Your task to perform on an android device: Open Google Chrome and click the shortcut for Amazon.com Image 0: 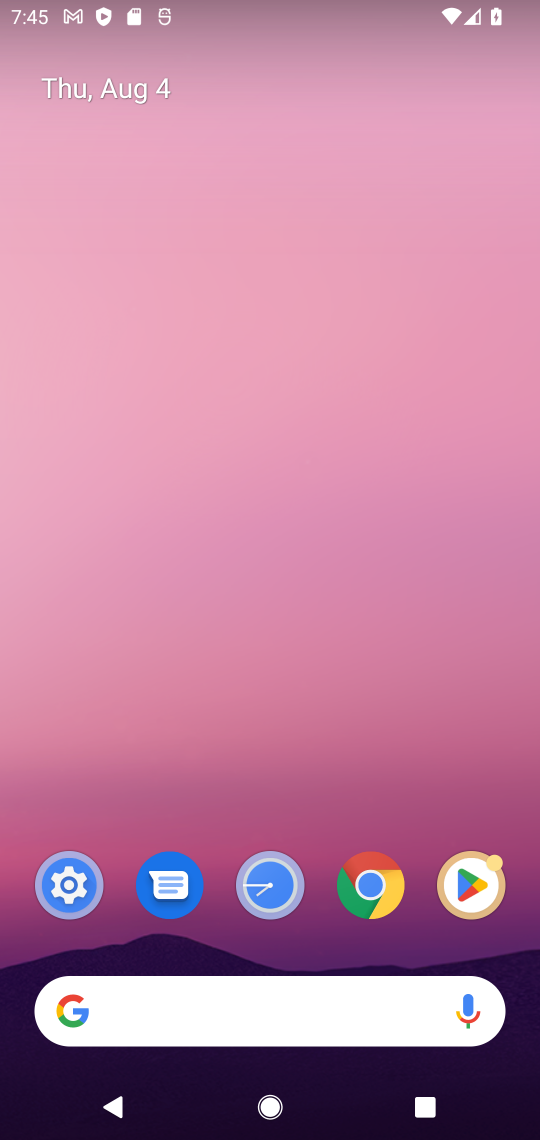
Step 0: press home button
Your task to perform on an android device: Open Google Chrome and click the shortcut for Amazon.com Image 1: 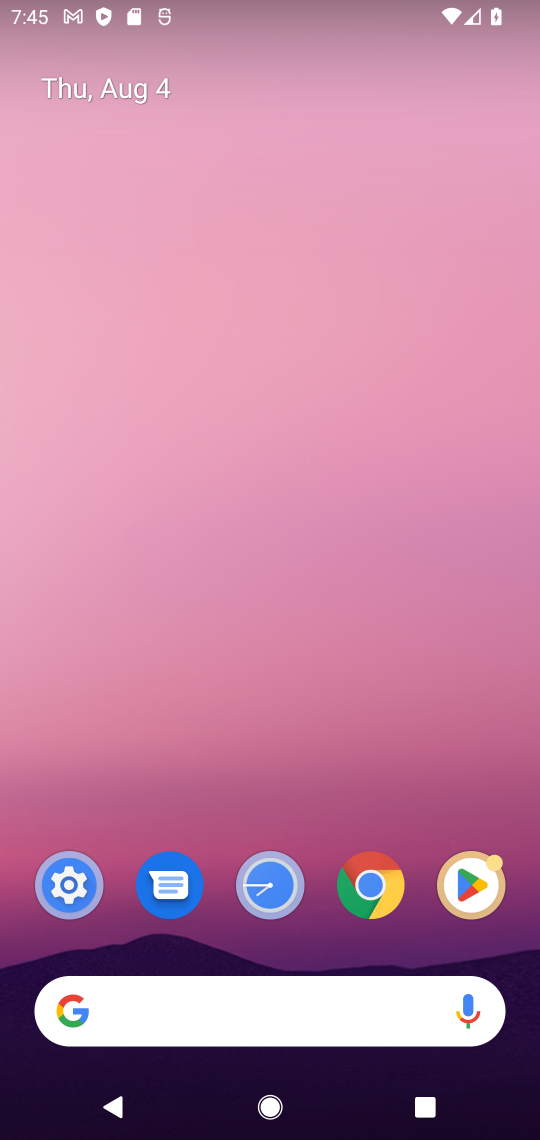
Step 1: drag from (414, 5) to (355, 529)
Your task to perform on an android device: Open Google Chrome and click the shortcut for Amazon.com Image 2: 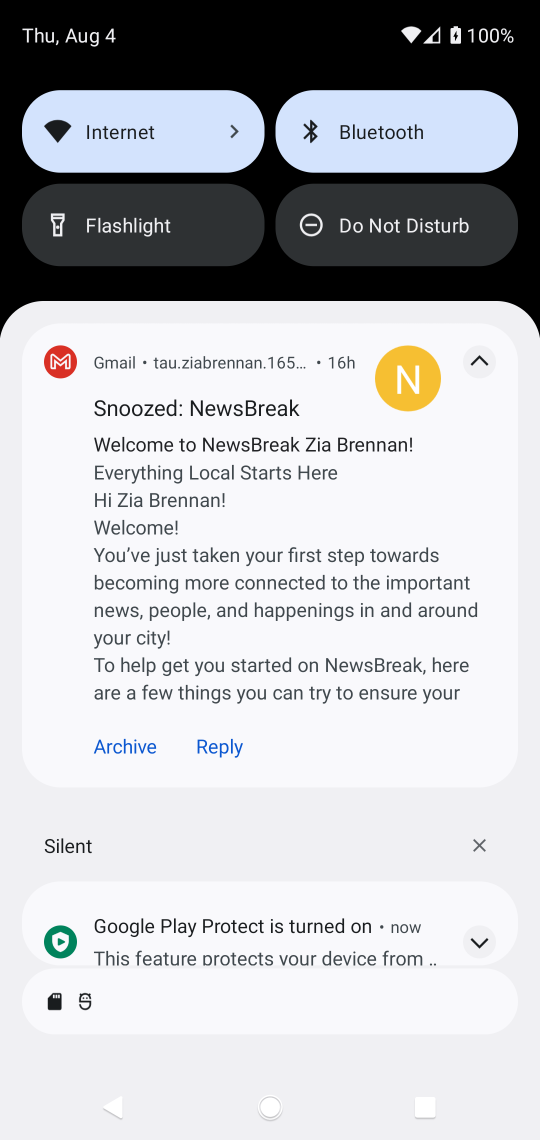
Step 2: press home button
Your task to perform on an android device: Open Google Chrome and click the shortcut for Amazon.com Image 3: 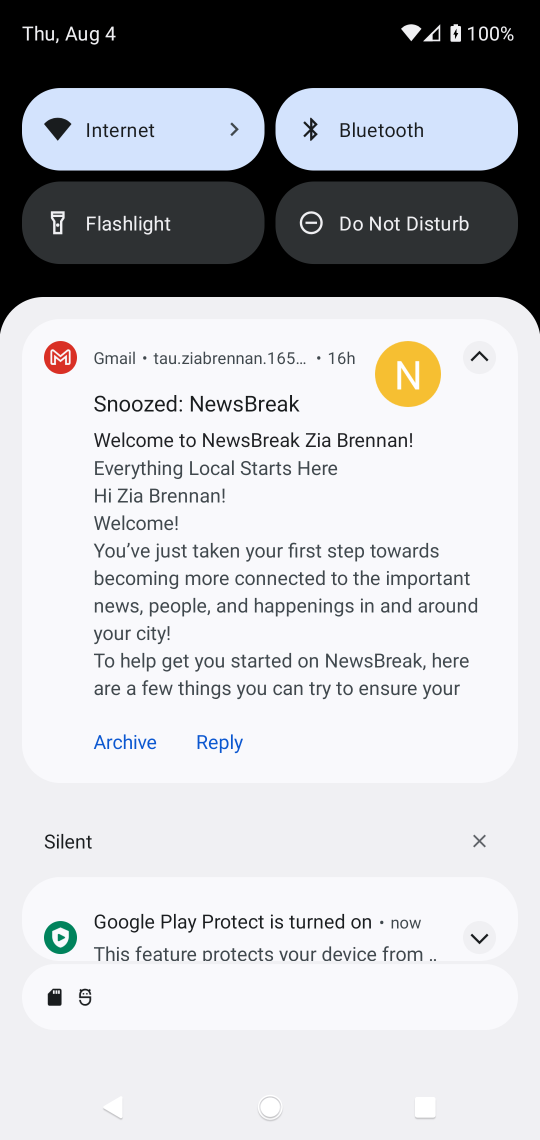
Step 3: press home button
Your task to perform on an android device: Open Google Chrome and click the shortcut for Amazon.com Image 4: 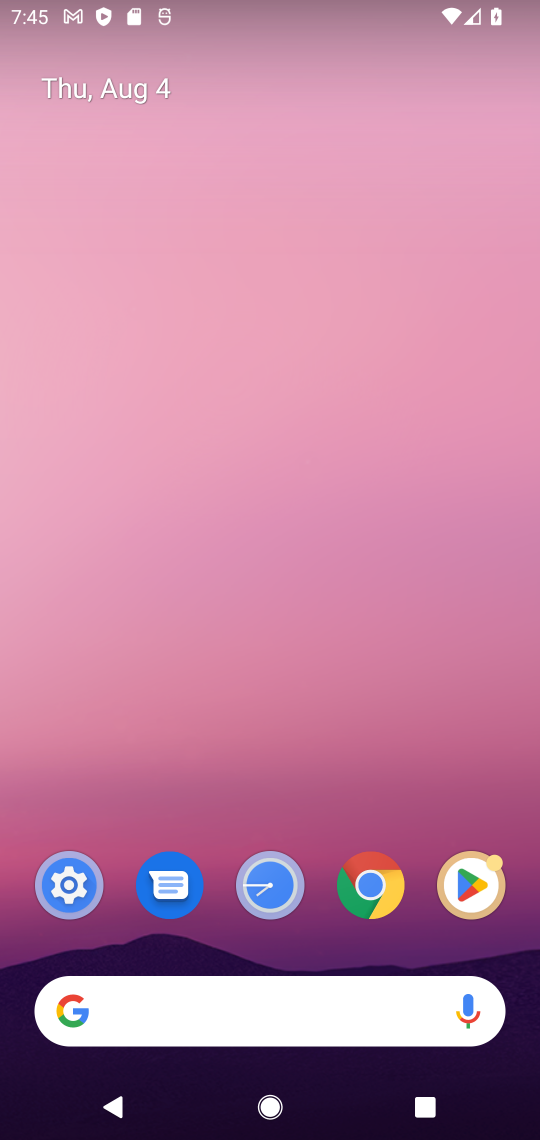
Step 4: click (360, 897)
Your task to perform on an android device: Open Google Chrome and click the shortcut for Amazon.com Image 5: 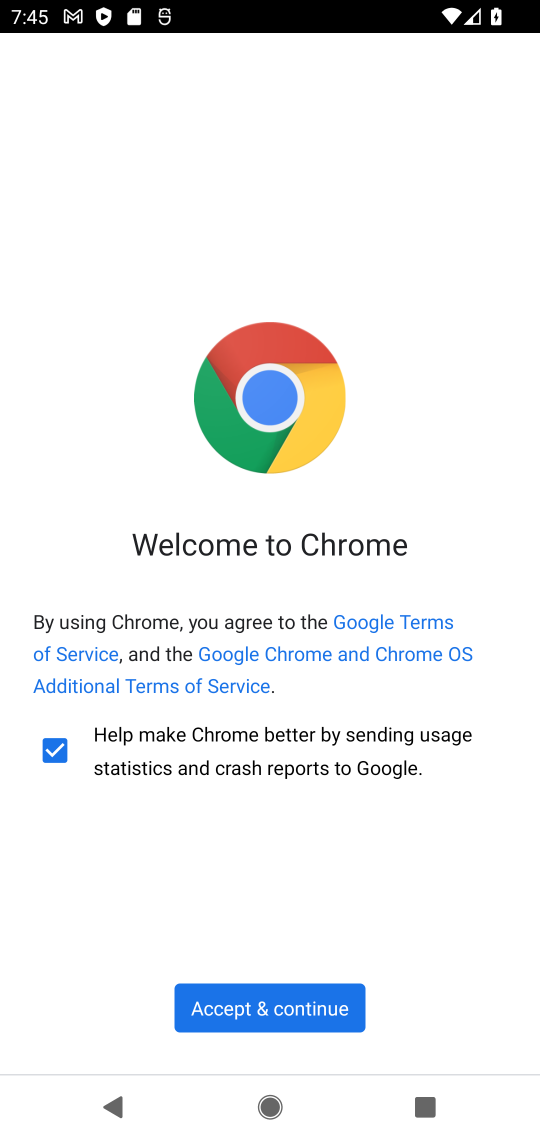
Step 5: click (333, 1001)
Your task to perform on an android device: Open Google Chrome and click the shortcut for Amazon.com Image 6: 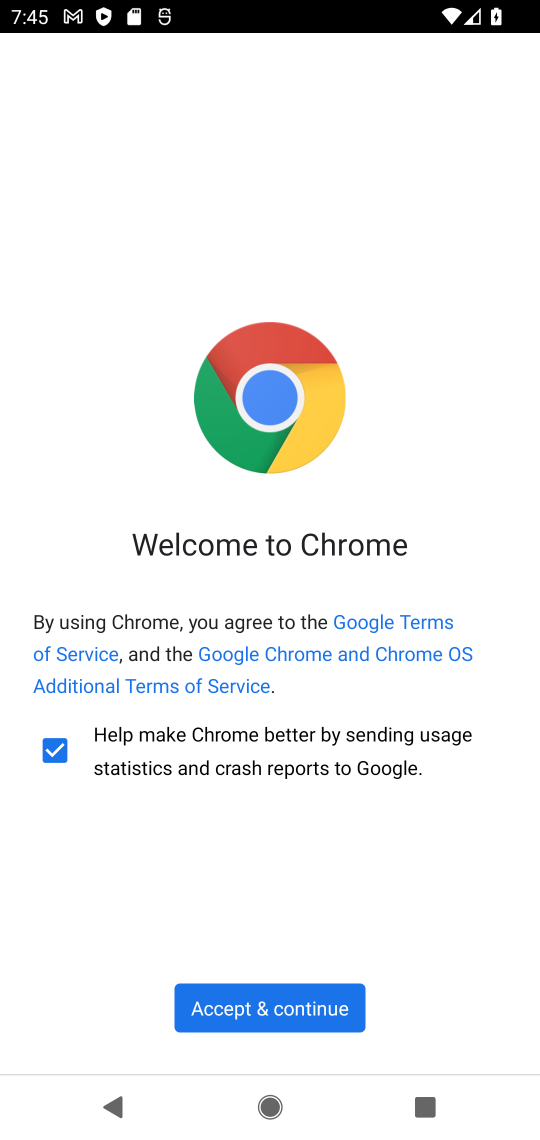
Step 6: click (486, 1021)
Your task to perform on an android device: Open Google Chrome and click the shortcut for Amazon.com Image 7: 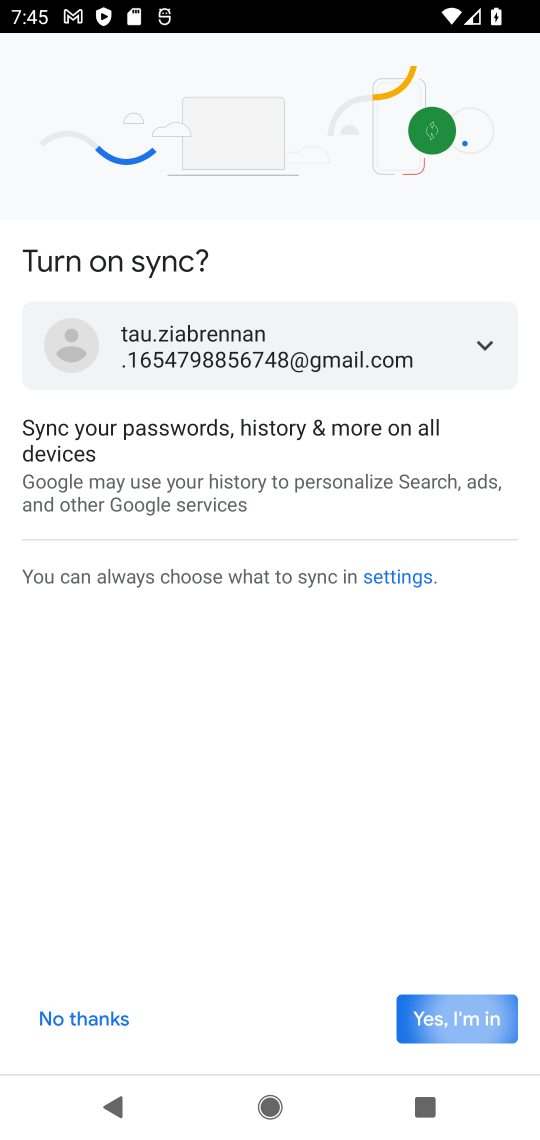
Step 7: click (486, 1021)
Your task to perform on an android device: Open Google Chrome and click the shortcut for Amazon.com Image 8: 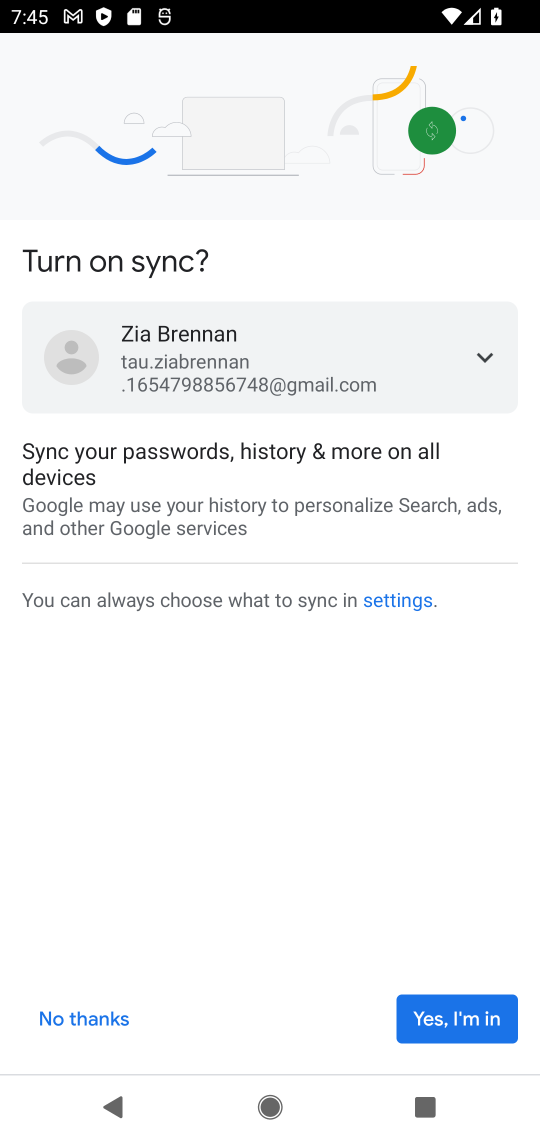
Step 8: click (457, 1022)
Your task to perform on an android device: Open Google Chrome and click the shortcut for Amazon.com Image 9: 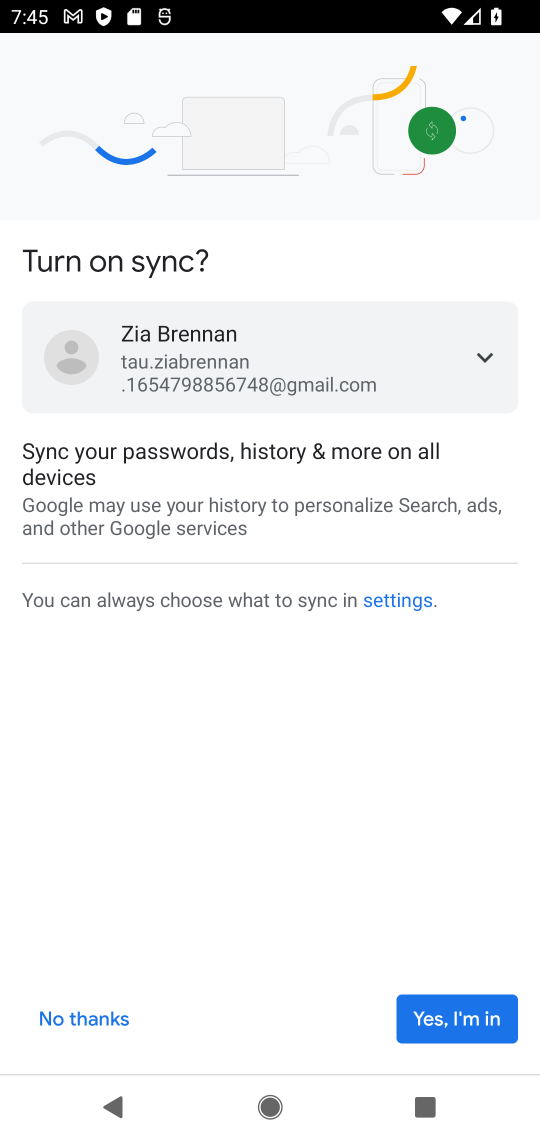
Step 9: click (457, 1022)
Your task to perform on an android device: Open Google Chrome and click the shortcut for Amazon.com Image 10: 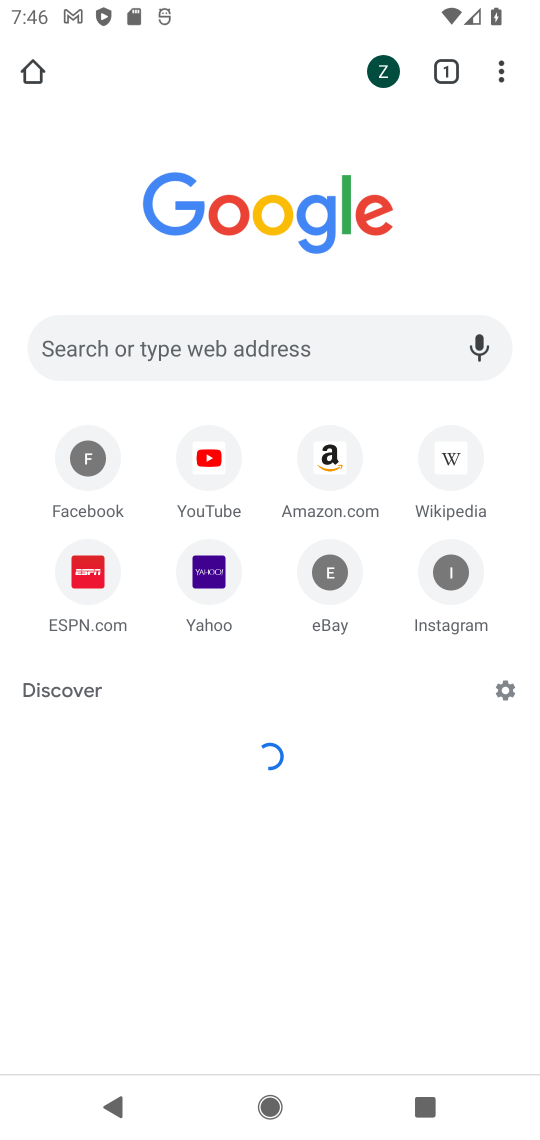
Step 10: click (334, 465)
Your task to perform on an android device: Open Google Chrome and click the shortcut for Amazon.com Image 11: 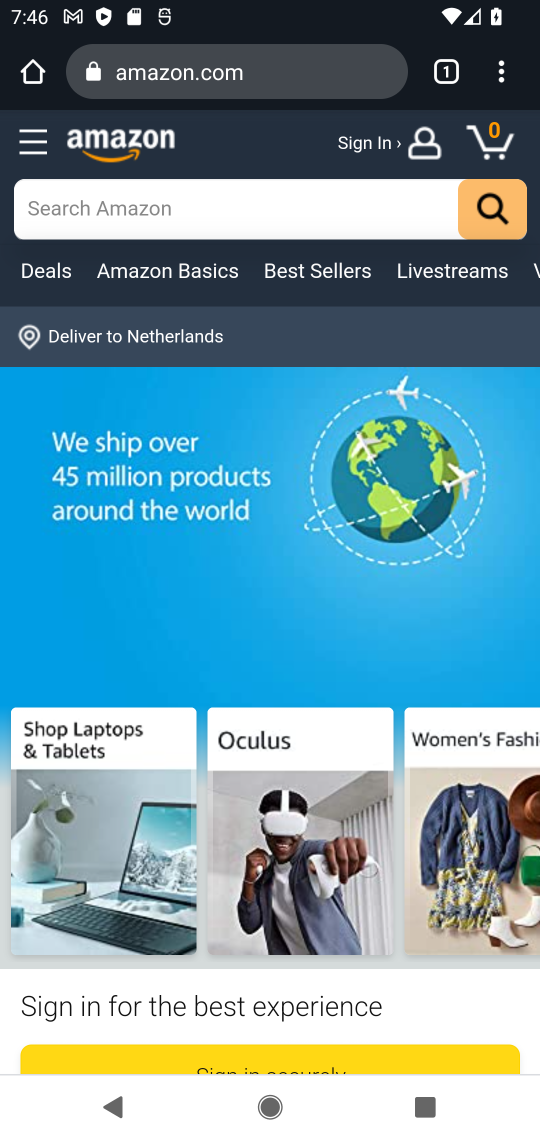
Step 11: task complete